Your task to perform on an android device: Check the weather Image 0: 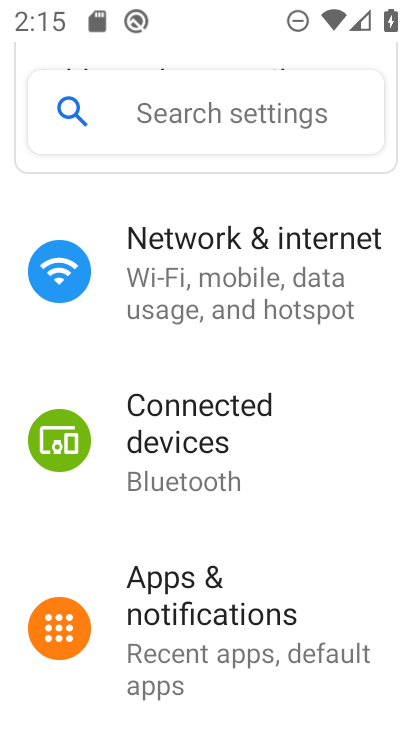
Step 0: press home button
Your task to perform on an android device: Check the weather Image 1: 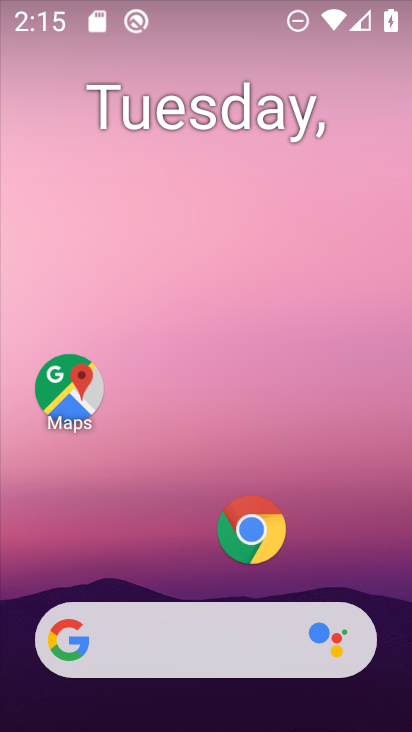
Step 1: drag from (236, 671) to (243, 78)
Your task to perform on an android device: Check the weather Image 2: 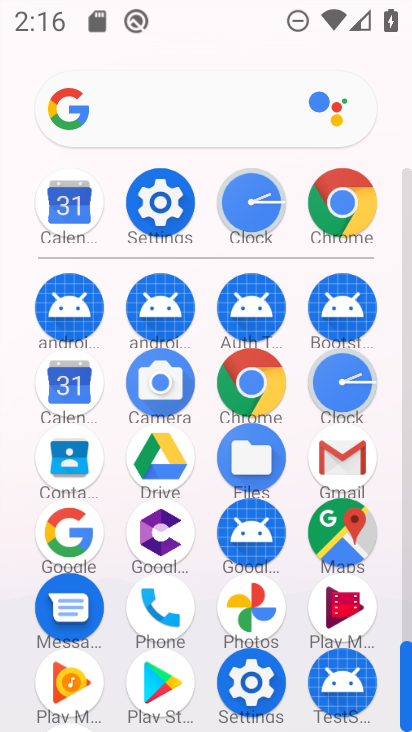
Step 2: click (171, 109)
Your task to perform on an android device: Check the weather Image 3: 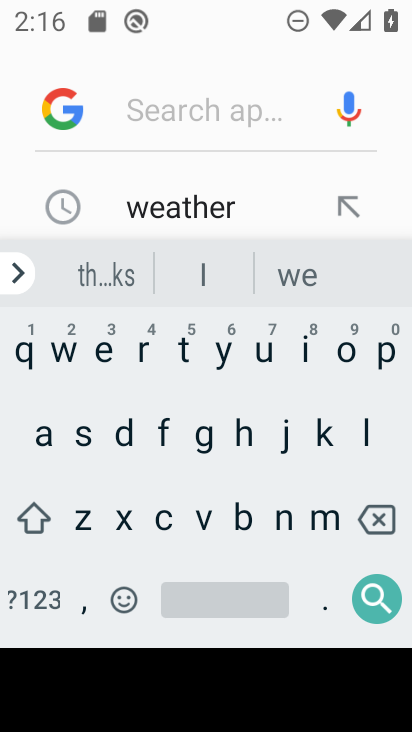
Step 3: click (200, 189)
Your task to perform on an android device: Check the weather Image 4: 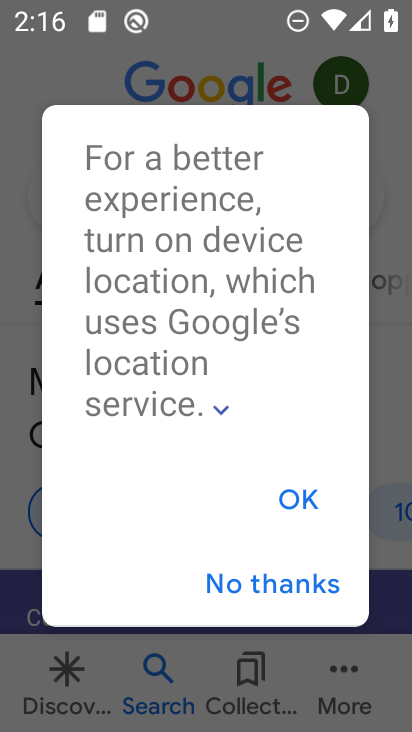
Step 4: click (306, 494)
Your task to perform on an android device: Check the weather Image 5: 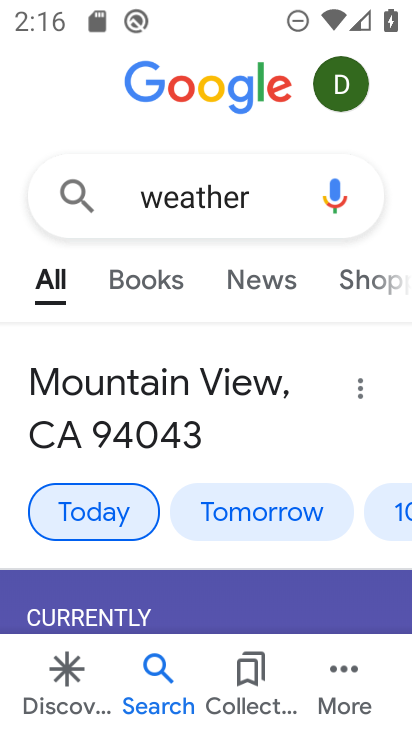
Step 5: task complete